Your task to perform on an android device: check google app version Image 0: 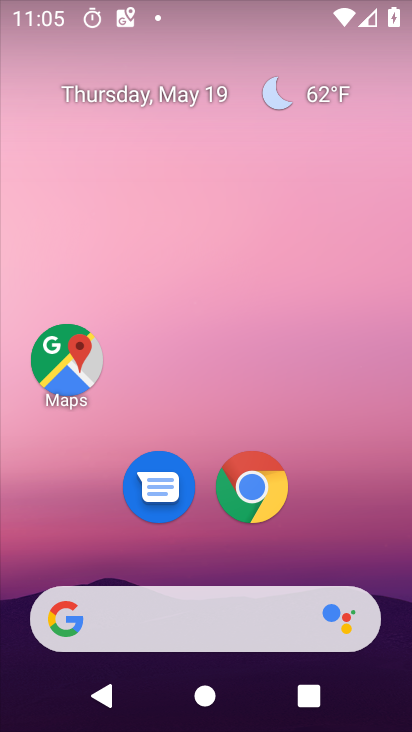
Step 0: drag from (331, 521) to (240, 23)
Your task to perform on an android device: check google app version Image 1: 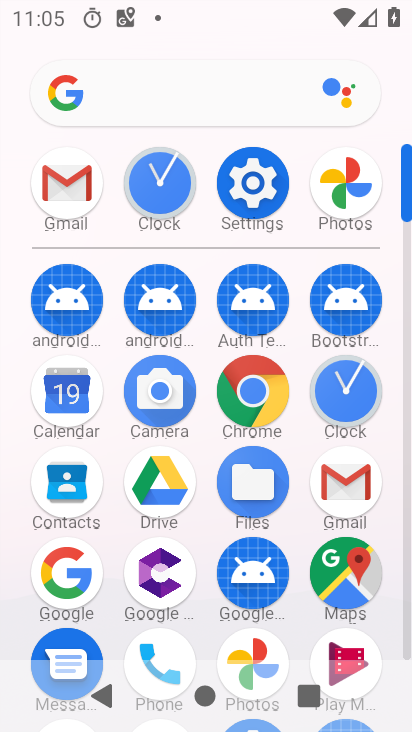
Step 1: click (55, 597)
Your task to perform on an android device: check google app version Image 2: 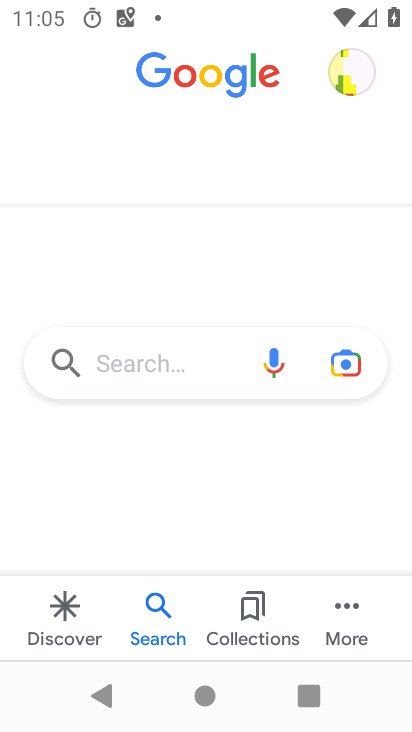
Step 2: click (355, 608)
Your task to perform on an android device: check google app version Image 3: 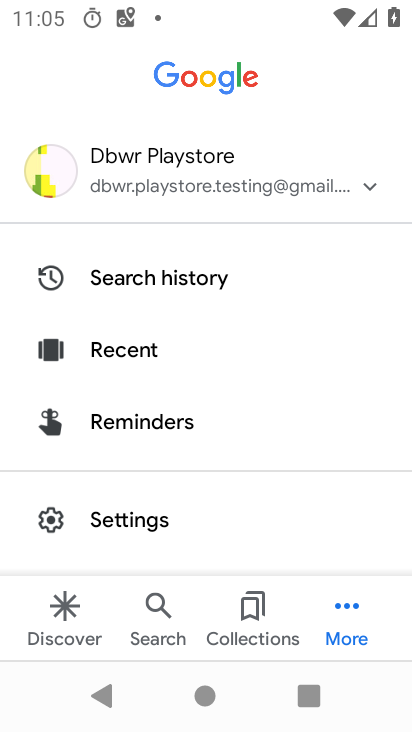
Step 3: click (216, 528)
Your task to perform on an android device: check google app version Image 4: 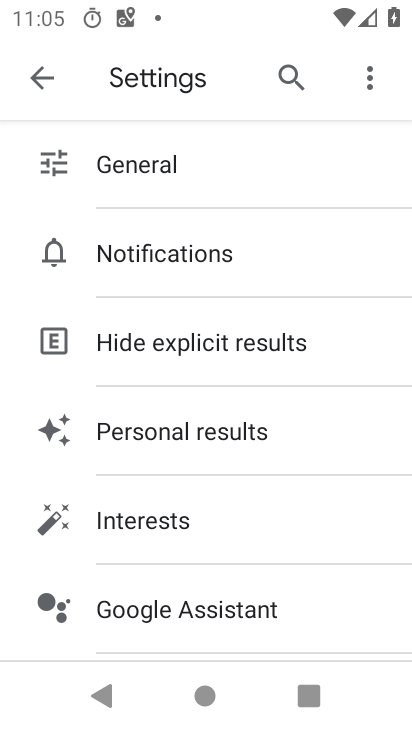
Step 4: drag from (255, 485) to (329, 271)
Your task to perform on an android device: check google app version Image 5: 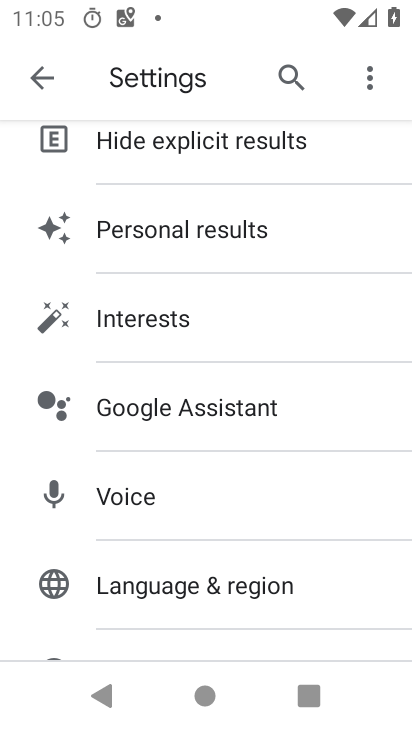
Step 5: drag from (156, 484) to (212, 247)
Your task to perform on an android device: check google app version Image 6: 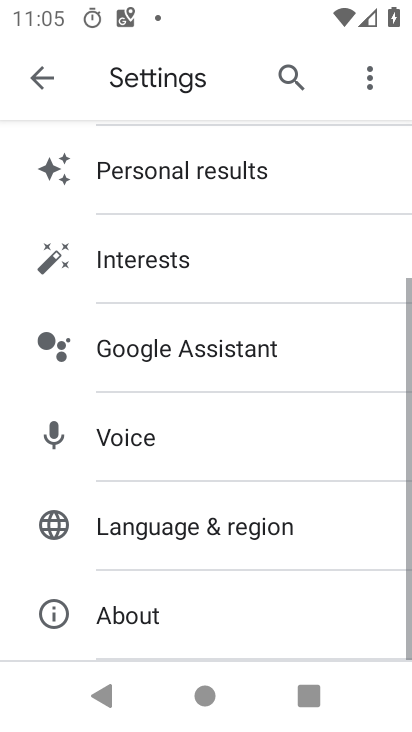
Step 6: click (179, 628)
Your task to perform on an android device: check google app version Image 7: 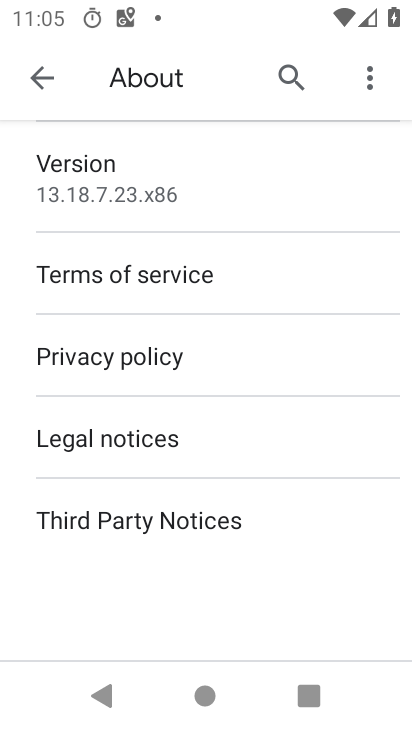
Step 7: click (176, 144)
Your task to perform on an android device: check google app version Image 8: 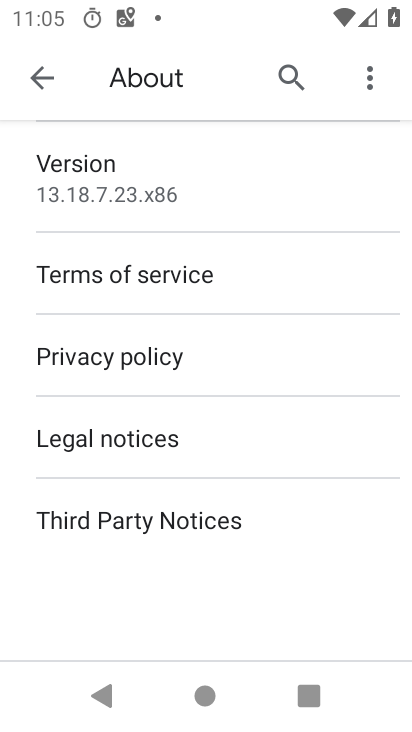
Step 8: task complete